Your task to perform on an android device: remove spam from my inbox in the gmail app Image 0: 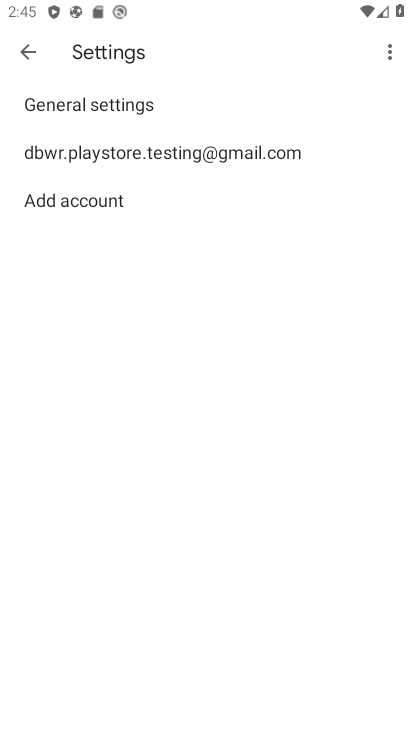
Step 0: press home button
Your task to perform on an android device: remove spam from my inbox in the gmail app Image 1: 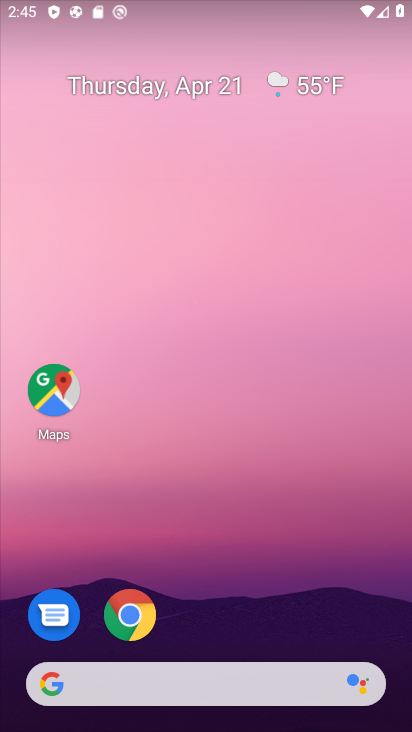
Step 1: drag from (134, 681) to (260, 136)
Your task to perform on an android device: remove spam from my inbox in the gmail app Image 2: 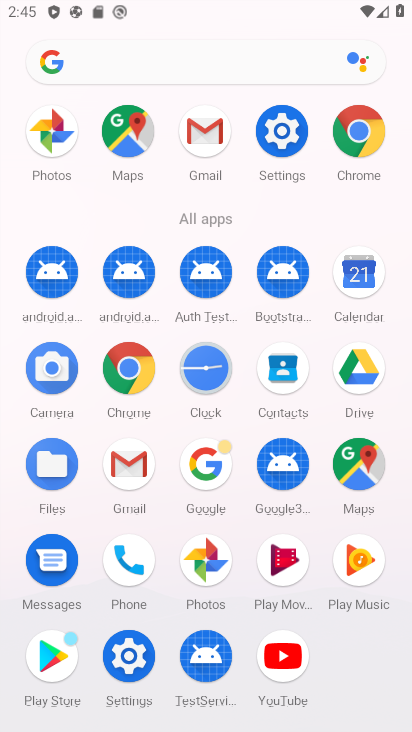
Step 2: click (200, 137)
Your task to perform on an android device: remove spam from my inbox in the gmail app Image 3: 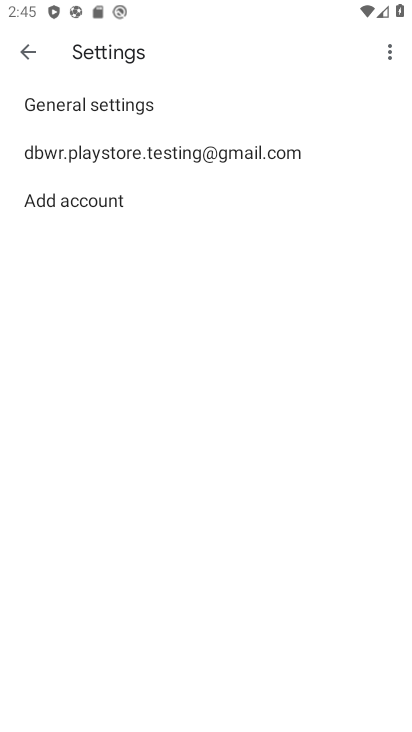
Step 3: click (28, 55)
Your task to perform on an android device: remove spam from my inbox in the gmail app Image 4: 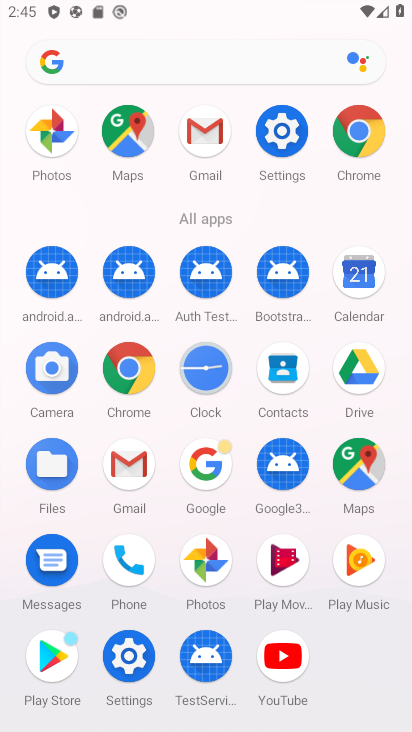
Step 4: click (192, 141)
Your task to perform on an android device: remove spam from my inbox in the gmail app Image 5: 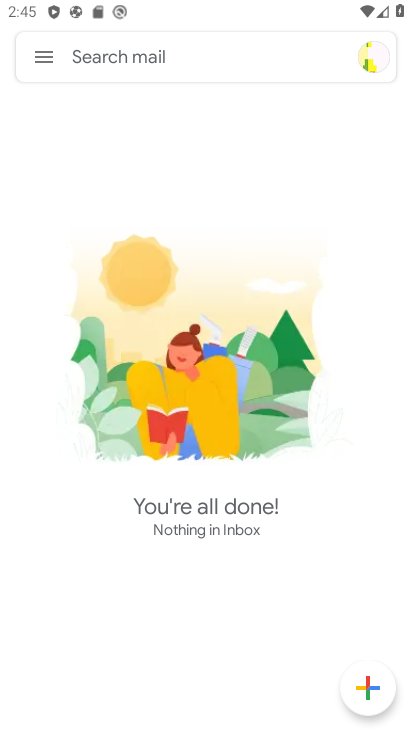
Step 5: click (37, 54)
Your task to perform on an android device: remove spam from my inbox in the gmail app Image 6: 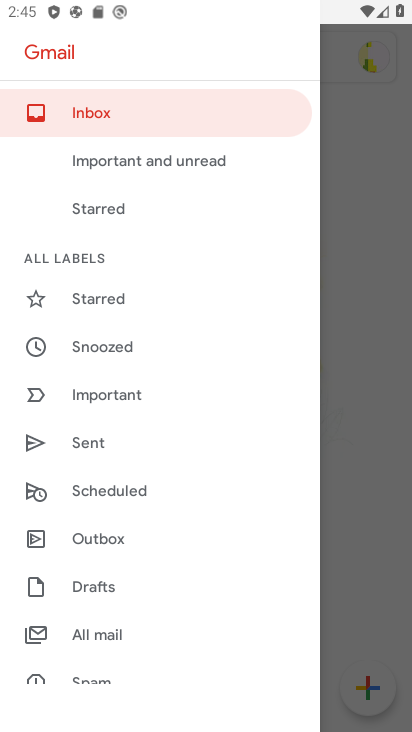
Step 6: drag from (136, 632) to (219, 316)
Your task to perform on an android device: remove spam from my inbox in the gmail app Image 7: 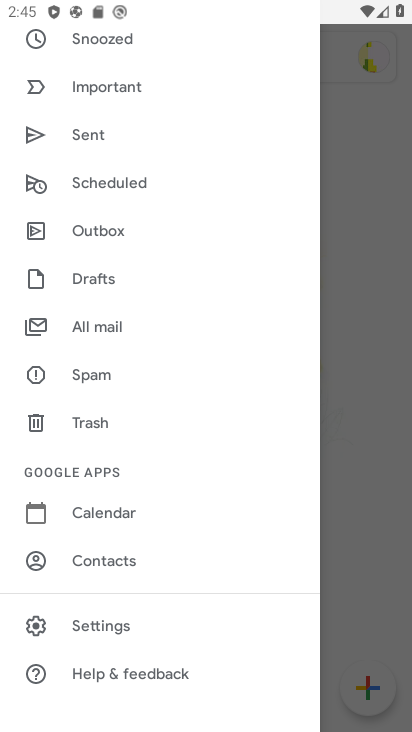
Step 7: click (95, 374)
Your task to perform on an android device: remove spam from my inbox in the gmail app Image 8: 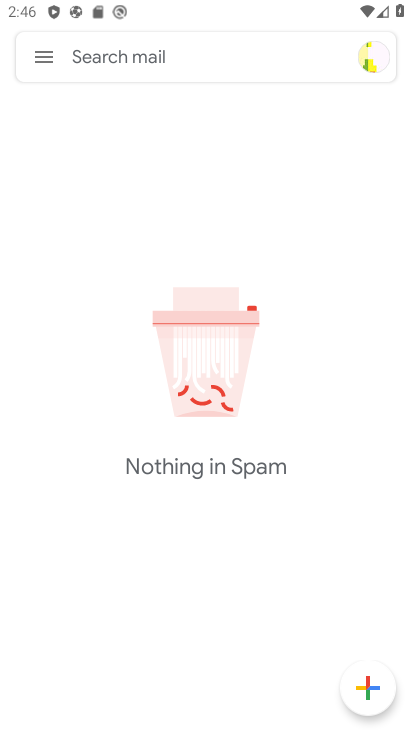
Step 8: task complete